Your task to perform on an android device: Empty the shopping cart on ebay.com. Add logitech g pro to the cart on ebay.com Image 0: 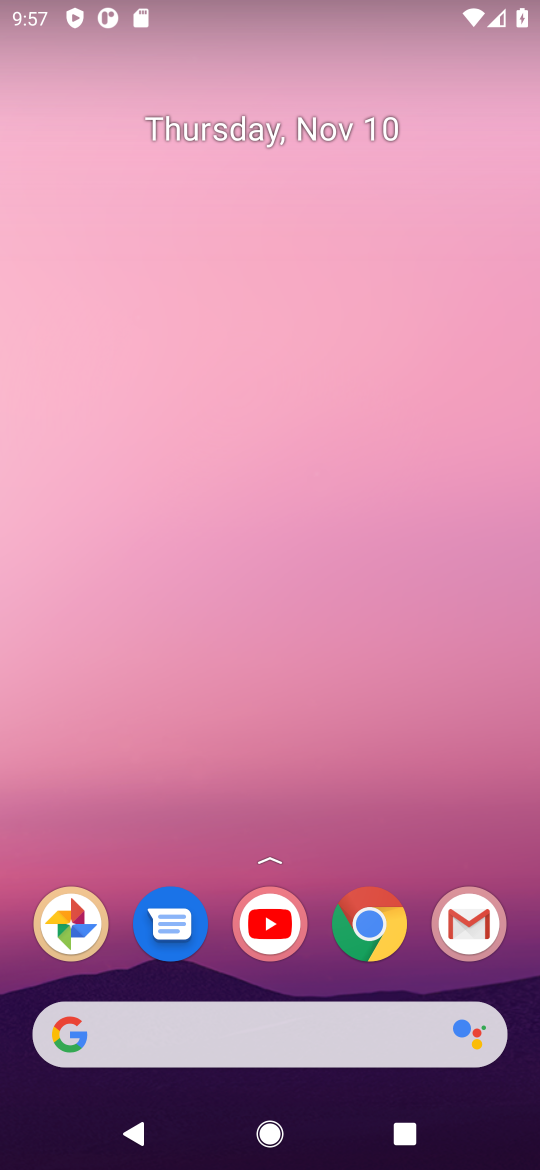
Step 0: click (356, 930)
Your task to perform on an android device: Empty the shopping cart on ebay.com. Add logitech g pro to the cart on ebay.com Image 1: 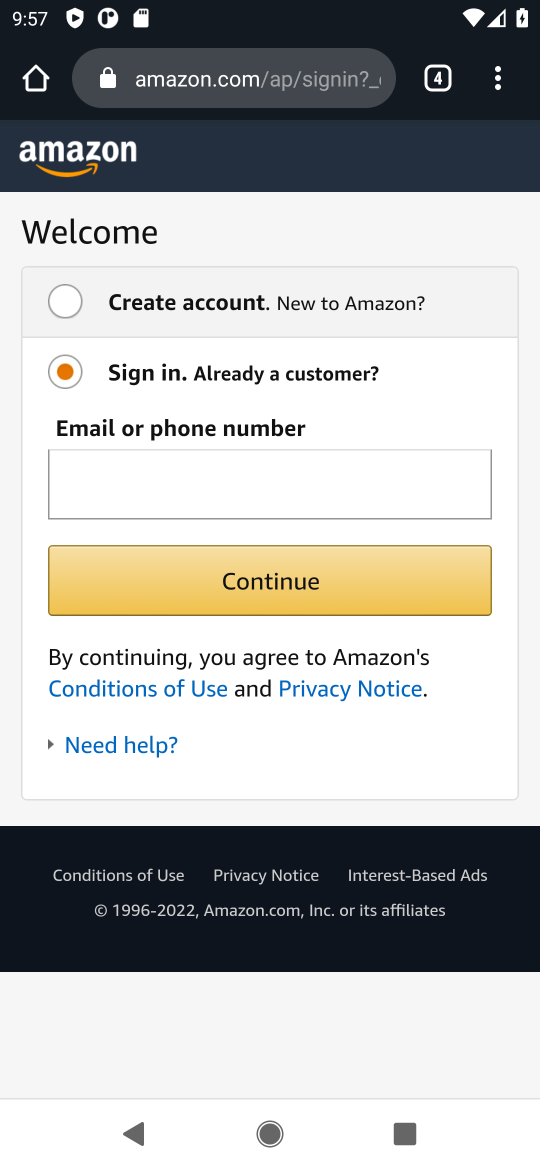
Step 1: click (232, 83)
Your task to perform on an android device: Empty the shopping cart on ebay.com. Add logitech g pro to the cart on ebay.com Image 2: 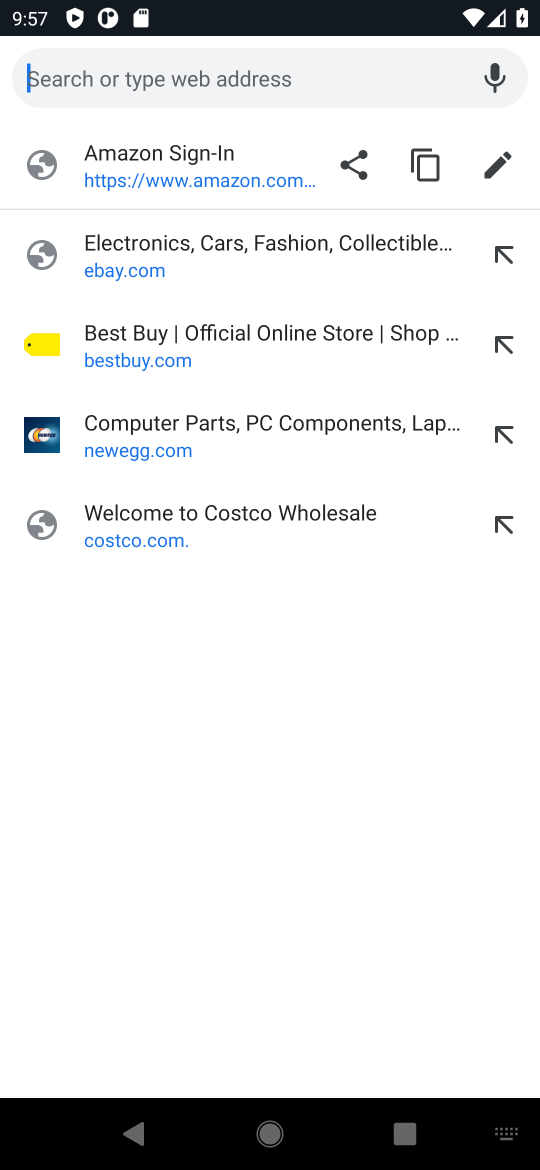
Step 2: click (133, 257)
Your task to perform on an android device: Empty the shopping cart on ebay.com. Add logitech g pro to the cart on ebay.com Image 3: 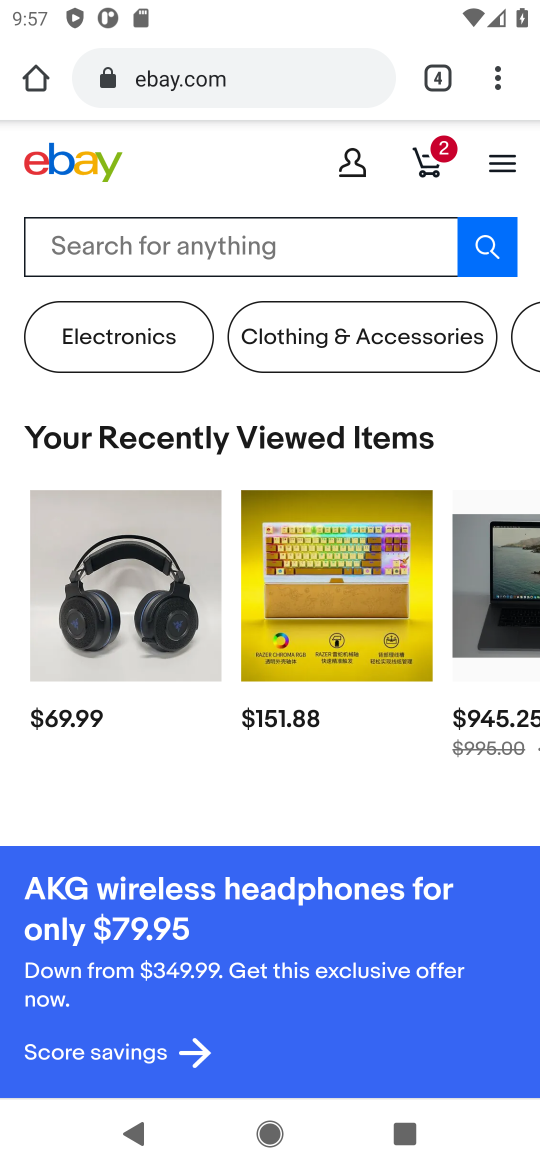
Step 3: click (436, 164)
Your task to perform on an android device: Empty the shopping cart on ebay.com. Add logitech g pro to the cart on ebay.com Image 4: 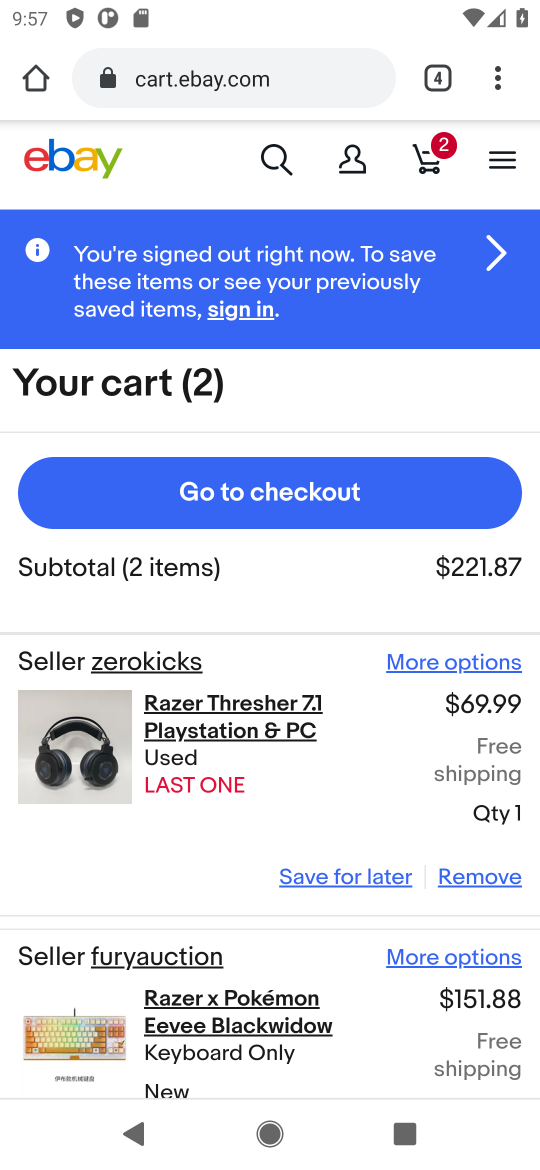
Step 4: click (443, 876)
Your task to perform on an android device: Empty the shopping cart on ebay.com. Add logitech g pro to the cart on ebay.com Image 5: 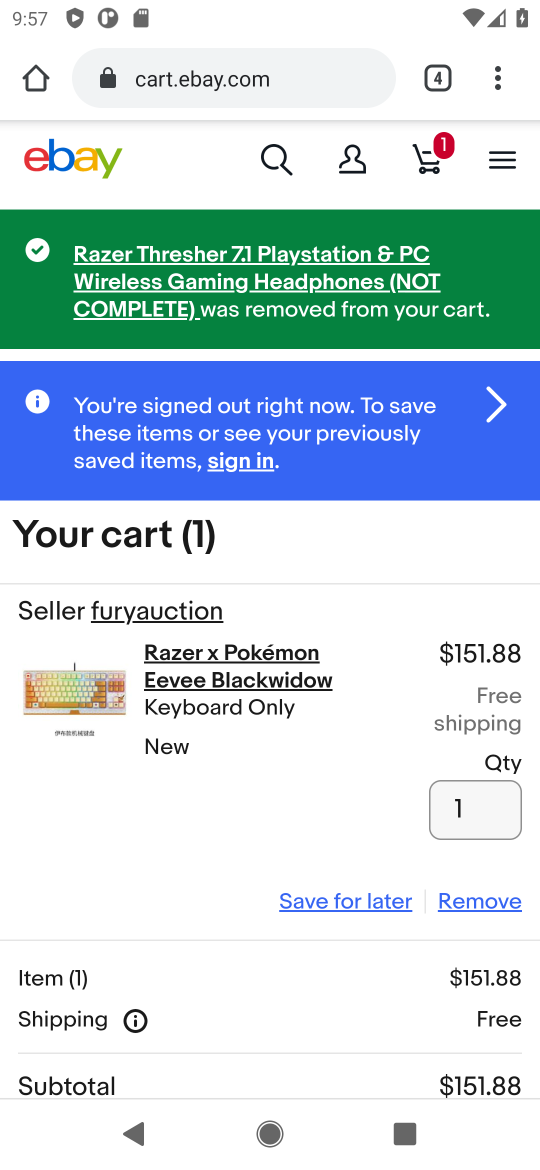
Step 5: click (463, 899)
Your task to perform on an android device: Empty the shopping cart on ebay.com. Add logitech g pro to the cart on ebay.com Image 6: 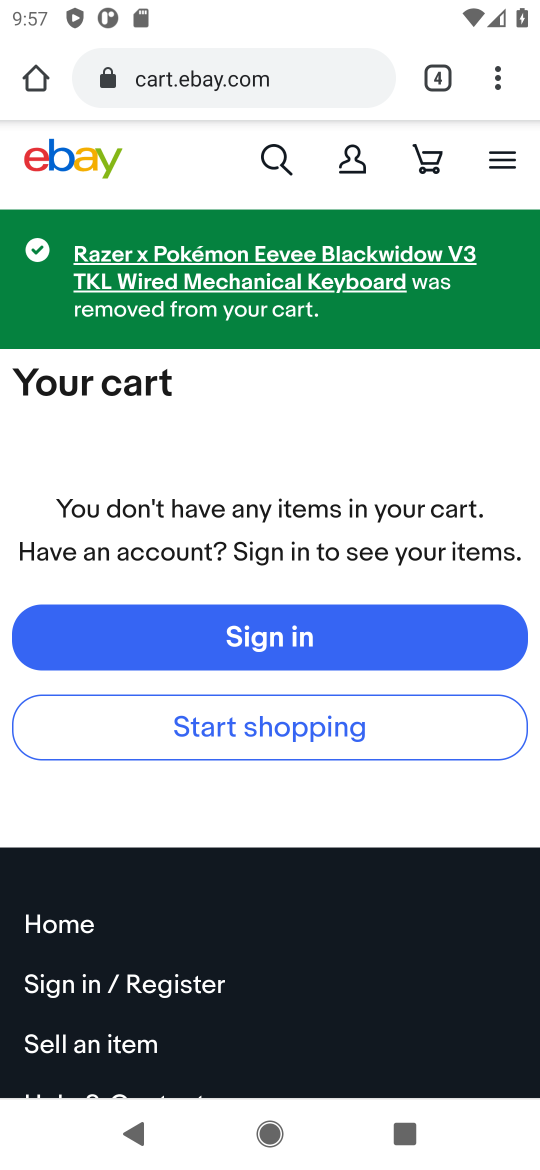
Step 6: click (285, 161)
Your task to perform on an android device: Empty the shopping cart on ebay.com. Add logitech g pro to the cart on ebay.com Image 7: 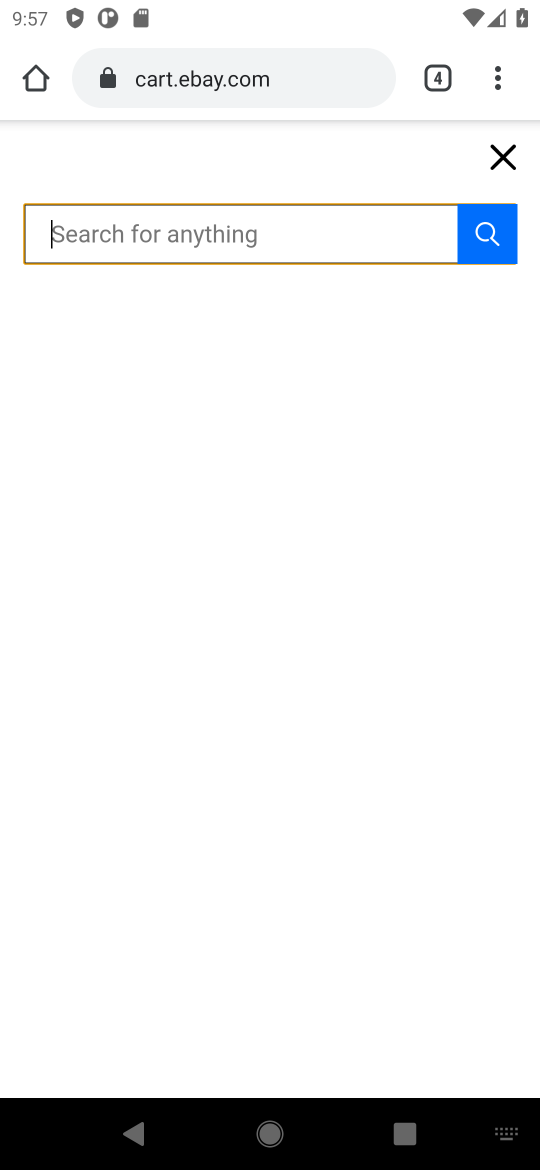
Step 7: type " logitech g pro"
Your task to perform on an android device: Empty the shopping cart on ebay.com. Add logitech g pro to the cart on ebay.com Image 8: 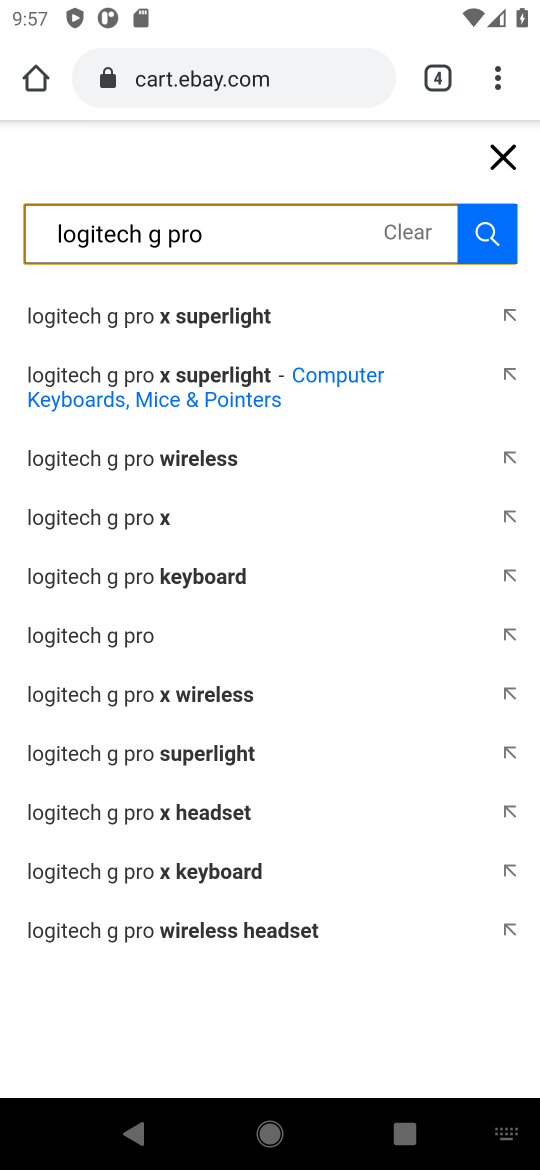
Step 8: click (76, 645)
Your task to perform on an android device: Empty the shopping cart on ebay.com. Add logitech g pro to the cart on ebay.com Image 9: 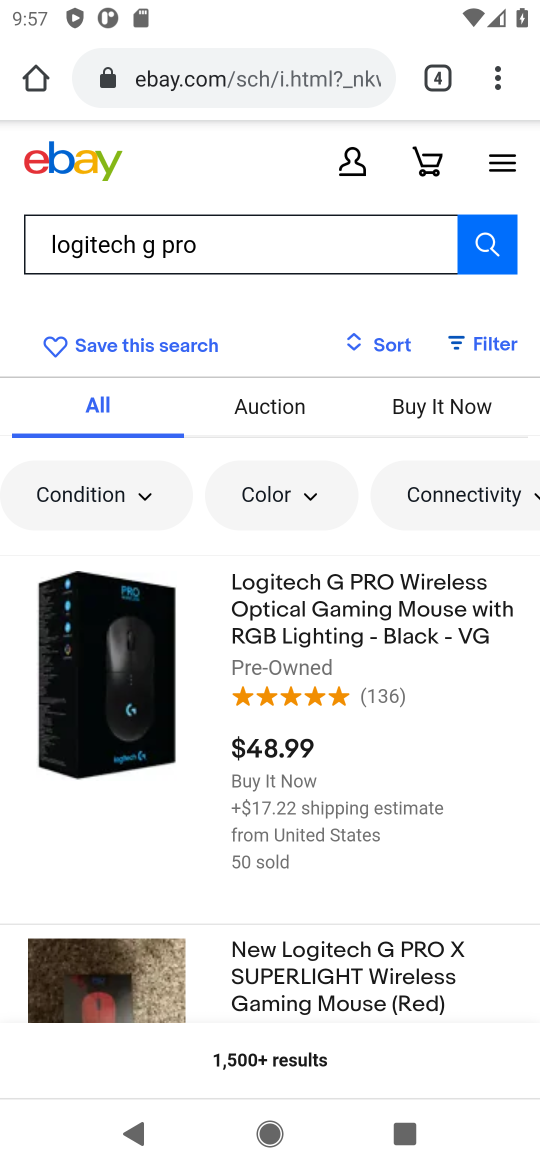
Step 9: click (167, 702)
Your task to perform on an android device: Empty the shopping cart on ebay.com. Add logitech g pro to the cart on ebay.com Image 10: 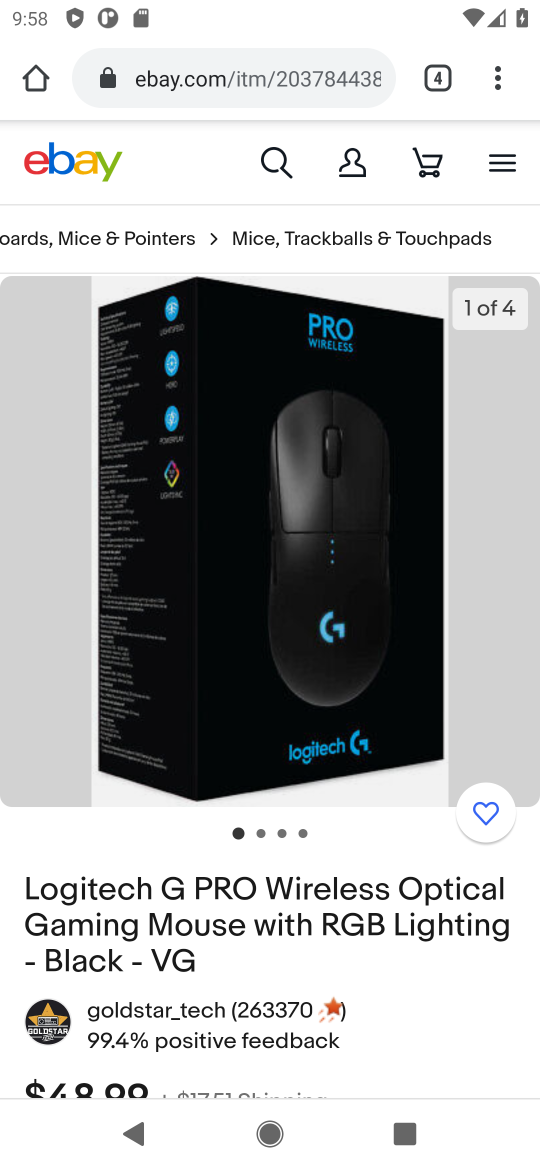
Step 10: drag from (194, 863) to (185, 437)
Your task to perform on an android device: Empty the shopping cart on ebay.com. Add logitech g pro to the cart on ebay.com Image 11: 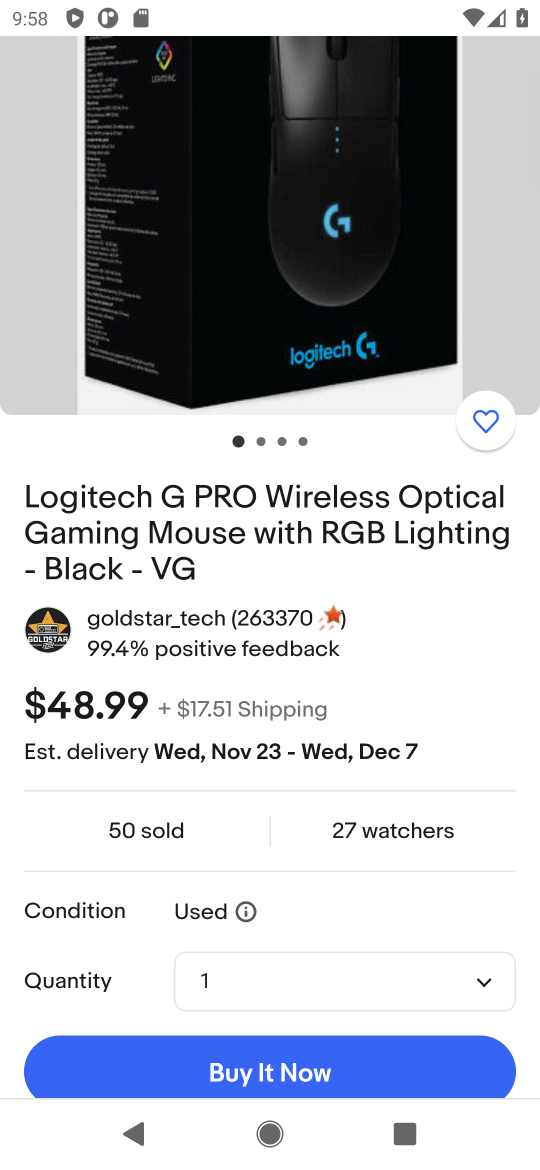
Step 11: drag from (189, 744) to (184, 451)
Your task to perform on an android device: Empty the shopping cart on ebay.com. Add logitech g pro to the cart on ebay.com Image 12: 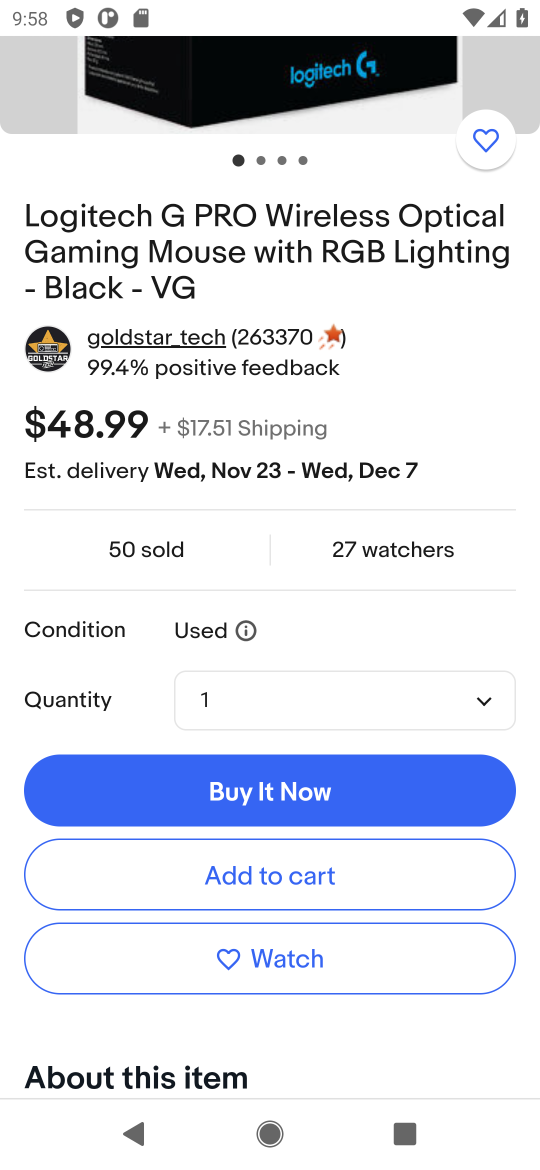
Step 12: click (198, 877)
Your task to perform on an android device: Empty the shopping cart on ebay.com. Add logitech g pro to the cart on ebay.com Image 13: 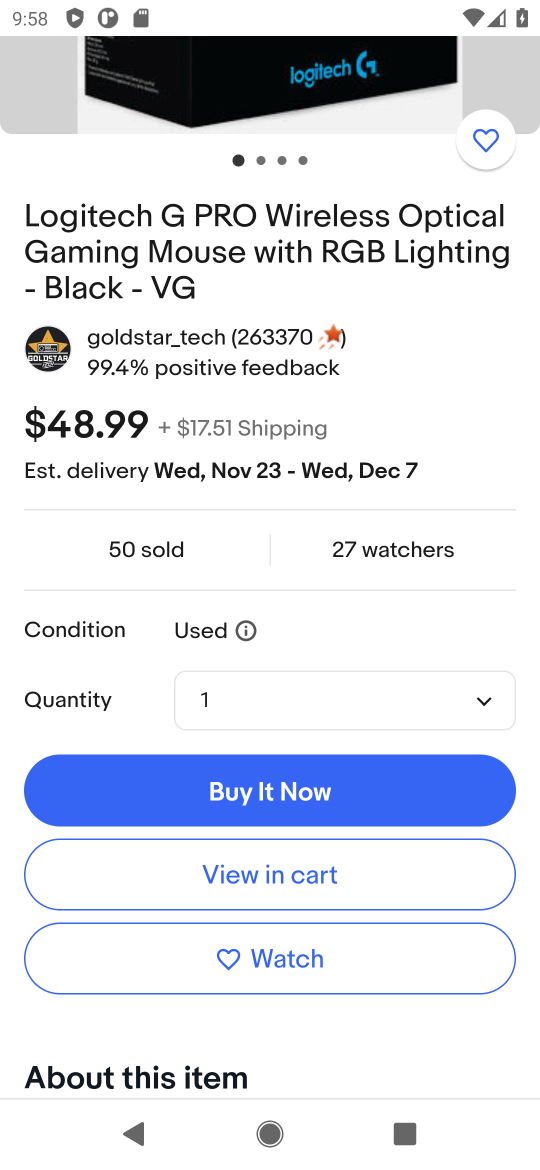
Step 13: task complete